Your task to perform on an android device: turn off wifi Image 0: 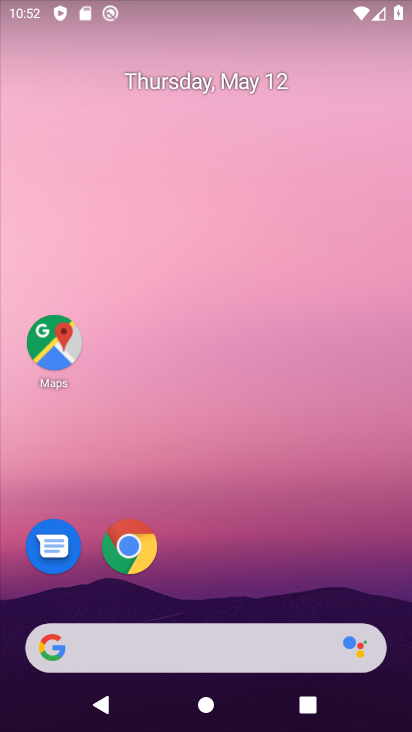
Step 0: drag from (226, 723) to (224, 86)
Your task to perform on an android device: turn off wifi Image 1: 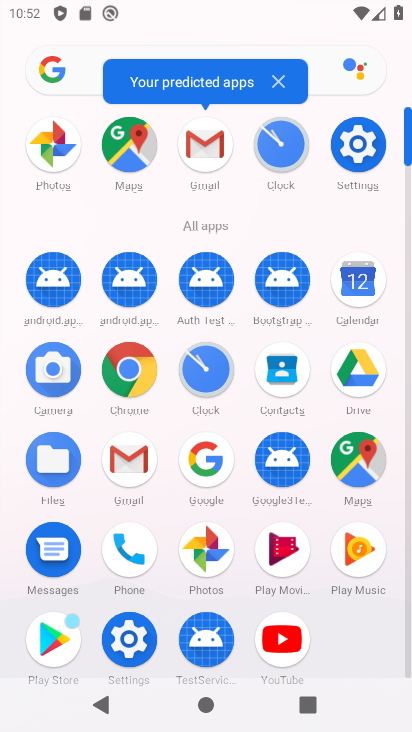
Step 1: click (358, 146)
Your task to perform on an android device: turn off wifi Image 2: 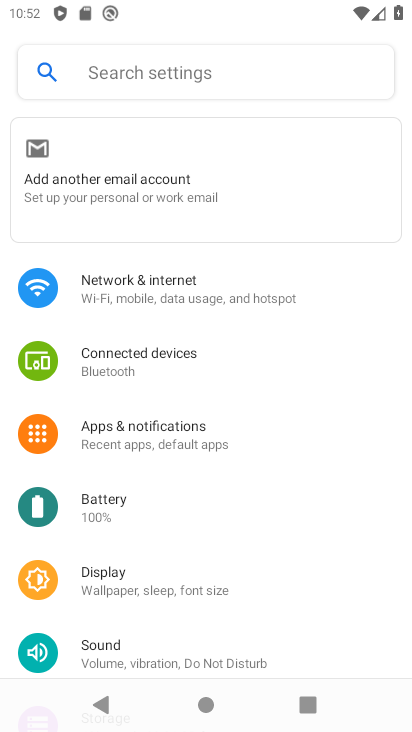
Step 2: click (144, 282)
Your task to perform on an android device: turn off wifi Image 3: 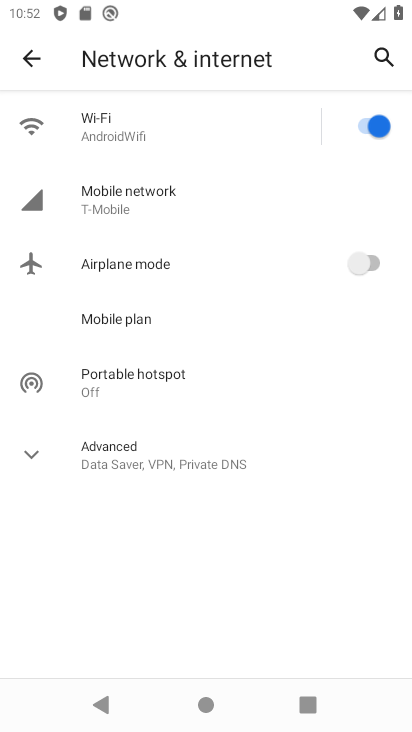
Step 3: click (369, 122)
Your task to perform on an android device: turn off wifi Image 4: 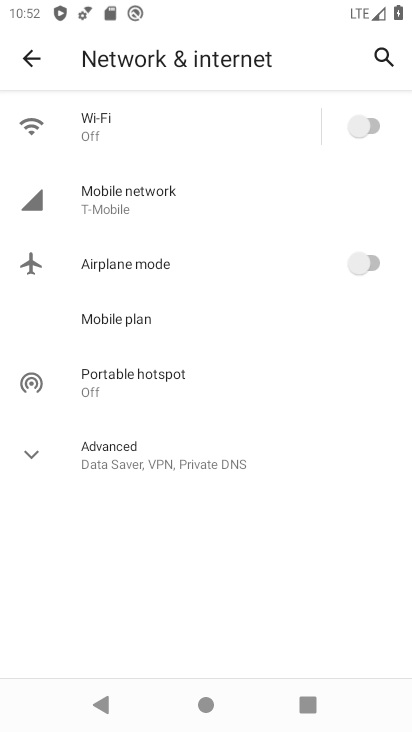
Step 4: task complete